Your task to perform on an android device: remove spam from my inbox in the gmail app Image 0: 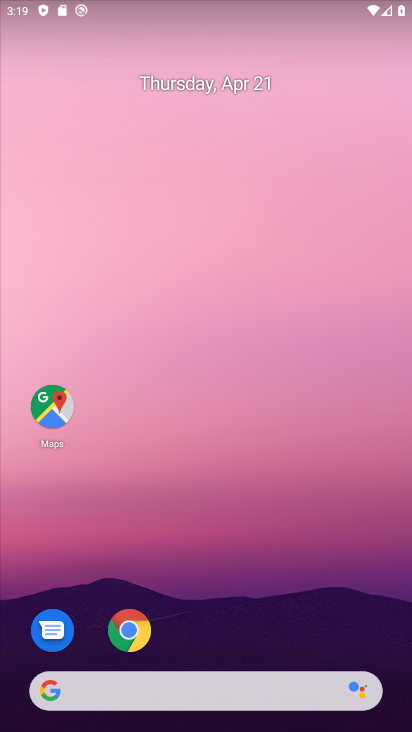
Step 0: drag from (363, 632) to (340, 17)
Your task to perform on an android device: remove spam from my inbox in the gmail app Image 1: 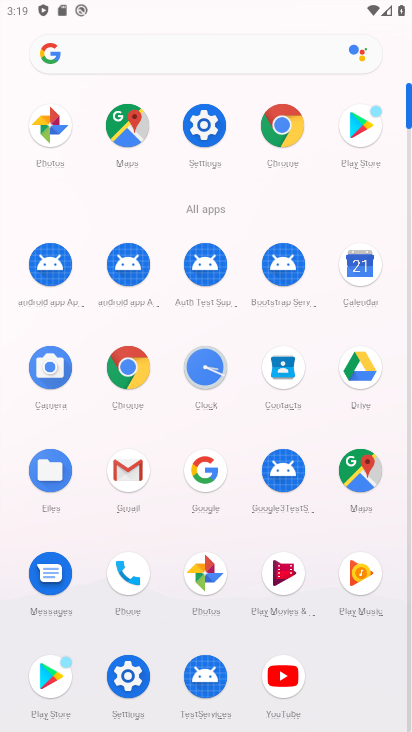
Step 1: click (130, 482)
Your task to perform on an android device: remove spam from my inbox in the gmail app Image 2: 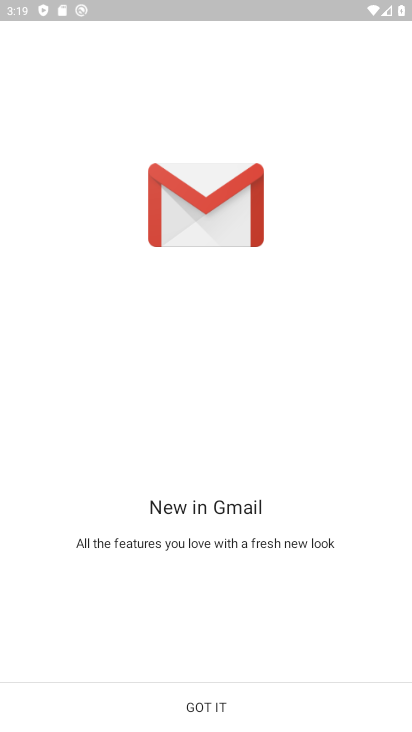
Step 2: click (217, 707)
Your task to perform on an android device: remove spam from my inbox in the gmail app Image 3: 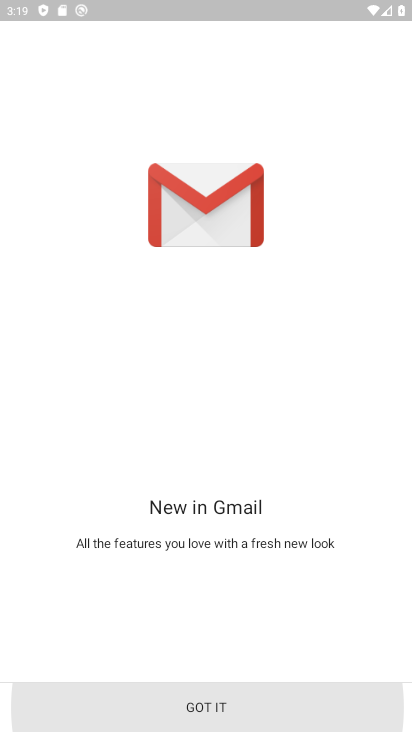
Step 3: click (217, 707)
Your task to perform on an android device: remove spam from my inbox in the gmail app Image 4: 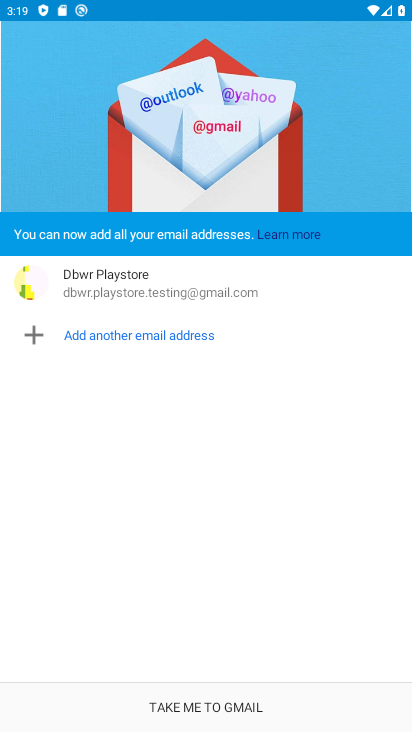
Step 4: click (217, 707)
Your task to perform on an android device: remove spam from my inbox in the gmail app Image 5: 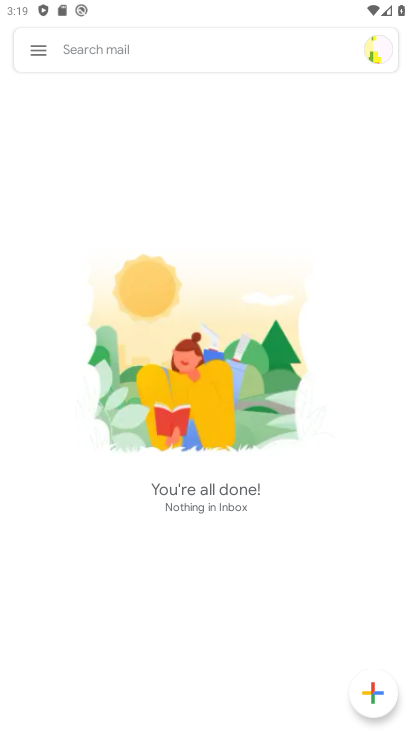
Step 5: click (41, 47)
Your task to perform on an android device: remove spam from my inbox in the gmail app Image 6: 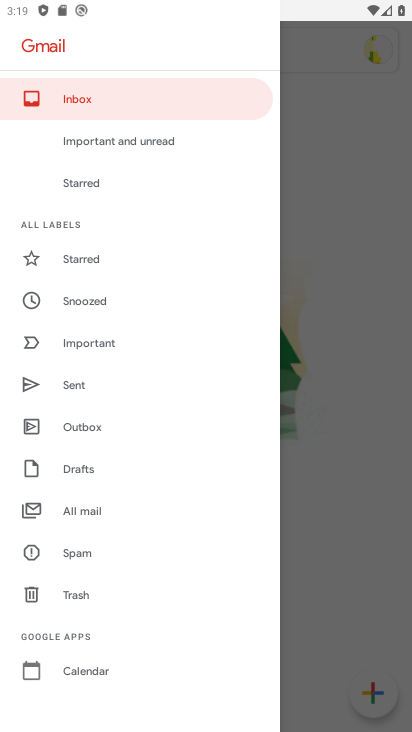
Step 6: click (80, 552)
Your task to perform on an android device: remove spam from my inbox in the gmail app Image 7: 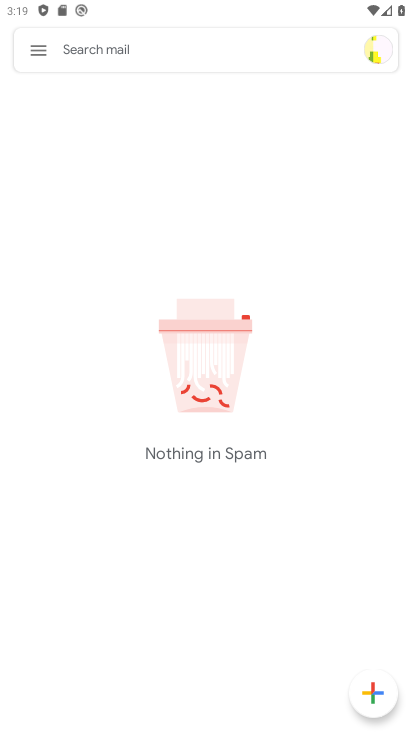
Step 7: task complete